Your task to perform on an android device: visit the assistant section in the google photos Image 0: 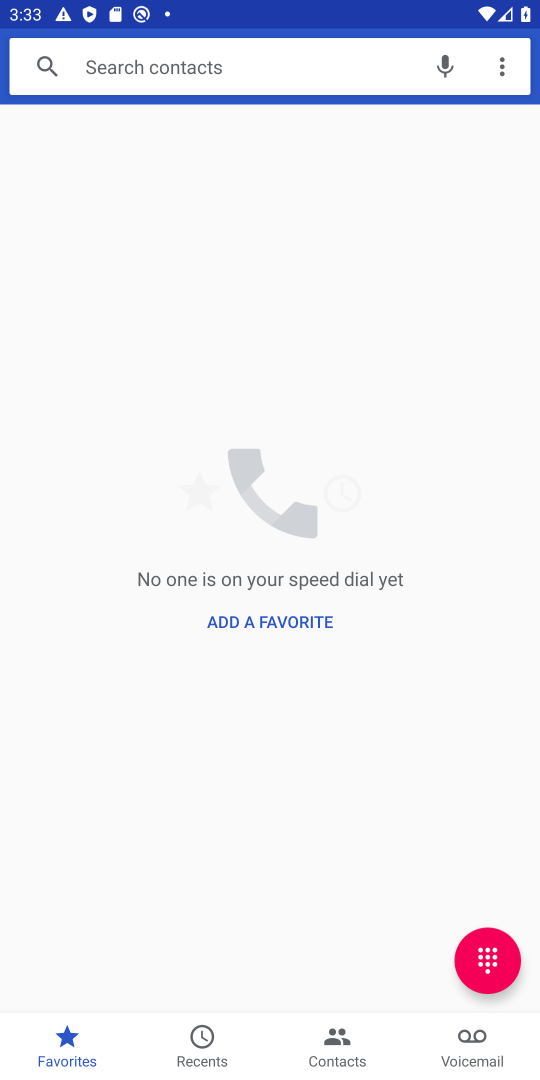
Step 0: press back button
Your task to perform on an android device: visit the assistant section in the google photos Image 1: 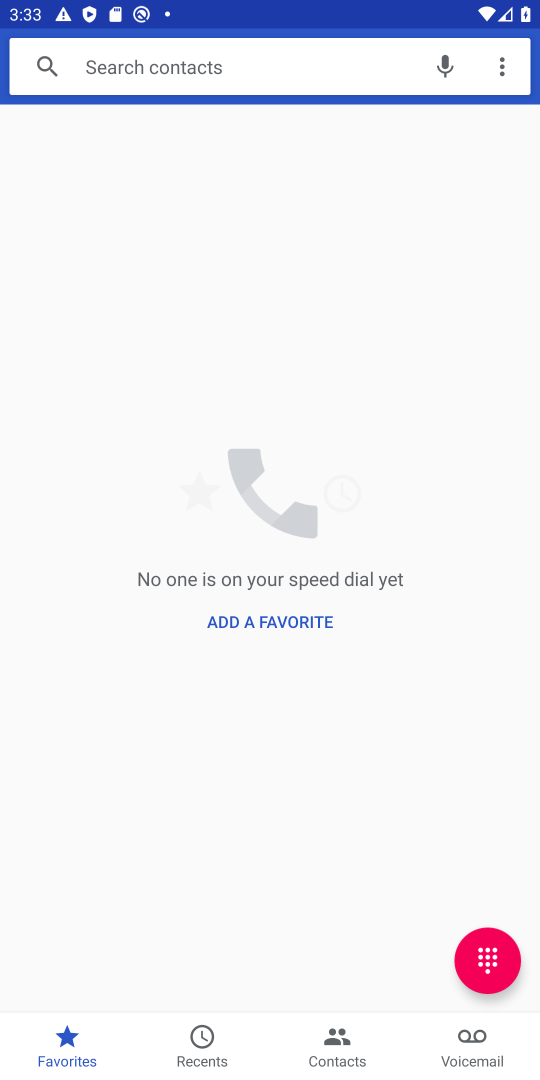
Step 1: press home button
Your task to perform on an android device: visit the assistant section in the google photos Image 2: 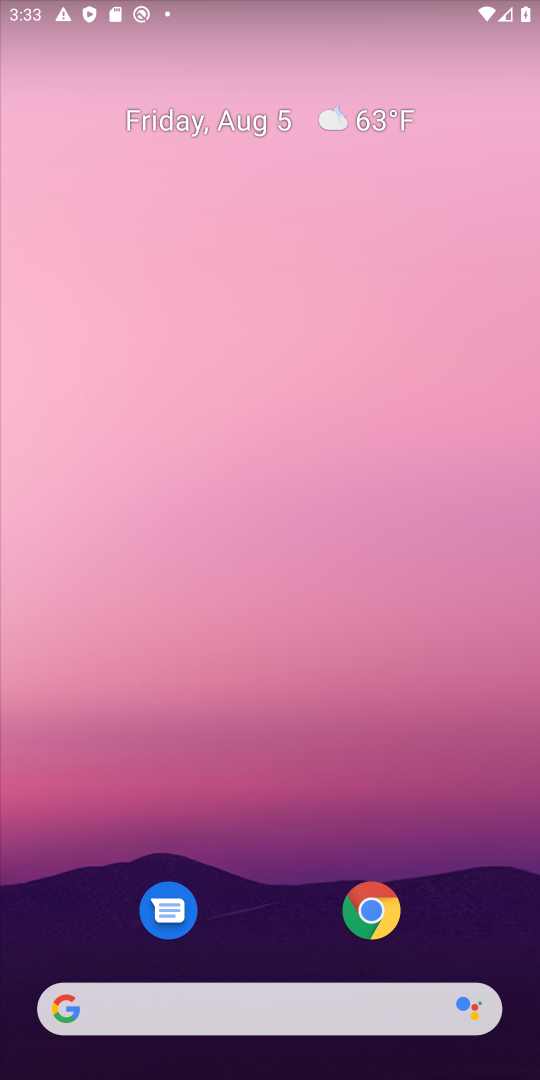
Step 2: drag from (499, 891) to (359, 401)
Your task to perform on an android device: visit the assistant section in the google photos Image 3: 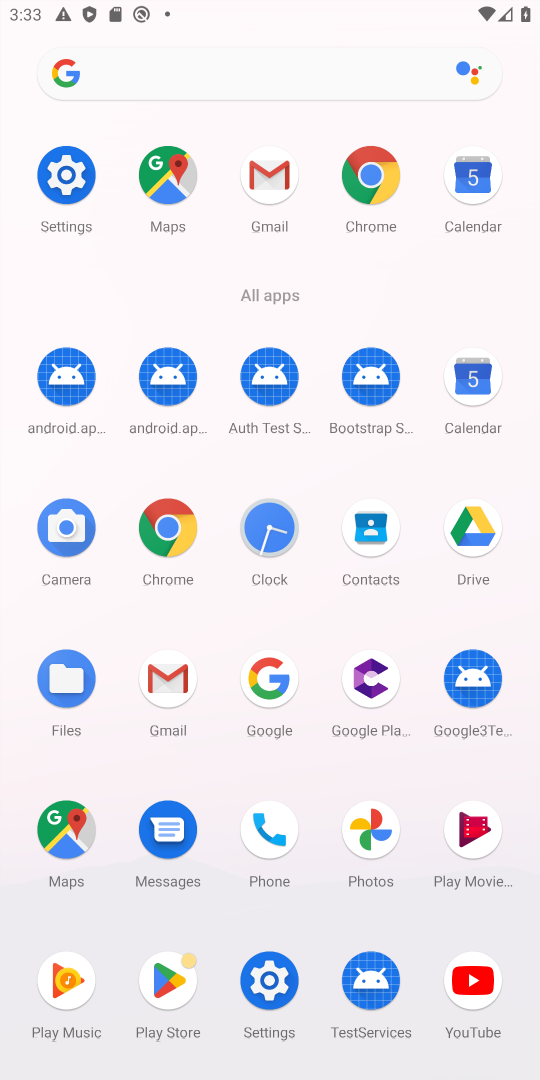
Step 3: click (377, 830)
Your task to perform on an android device: visit the assistant section in the google photos Image 4: 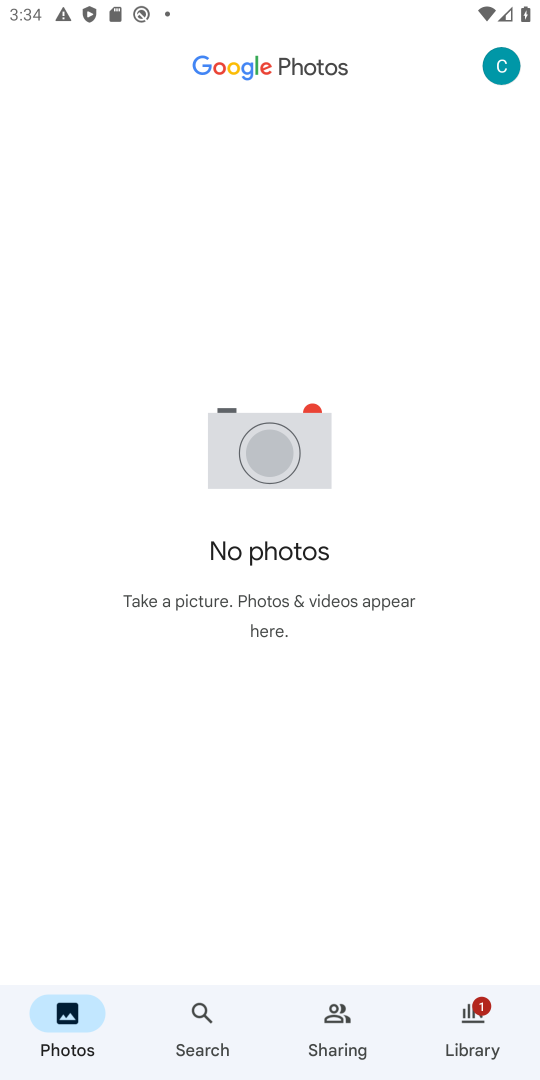
Step 4: task complete